Your task to perform on an android device: Open the web browser Image 0: 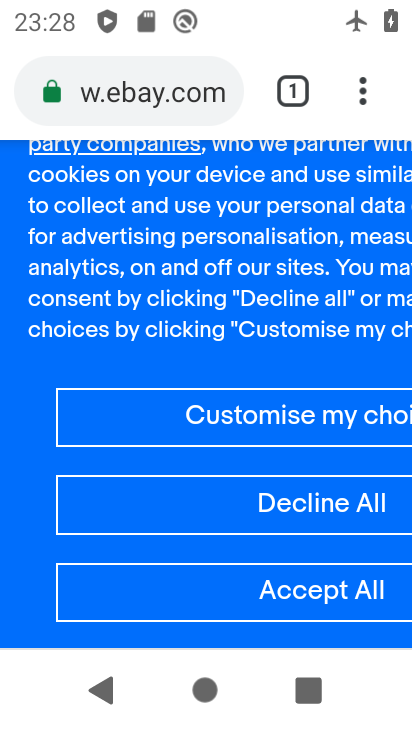
Step 0: press home button
Your task to perform on an android device: Open the web browser Image 1: 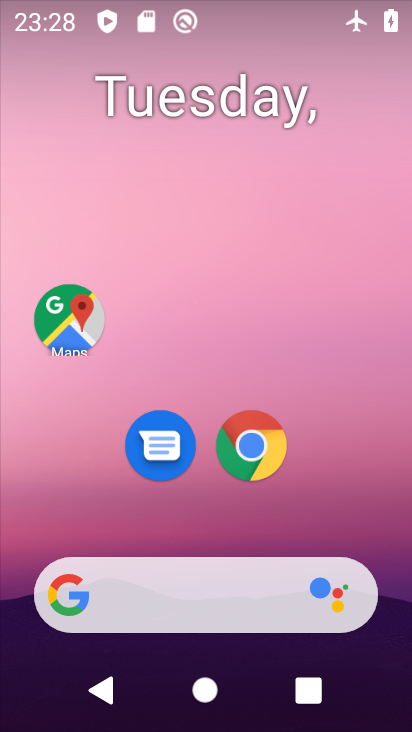
Step 1: click (239, 452)
Your task to perform on an android device: Open the web browser Image 2: 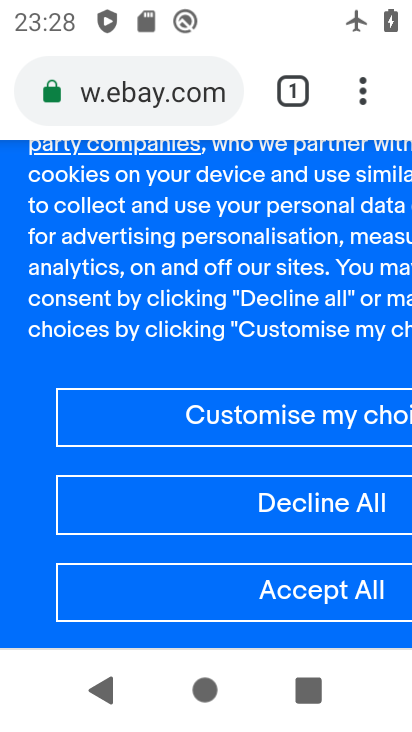
Step 2: task complete